Your task to perform on an android device: Go to CNN.com Image 0: 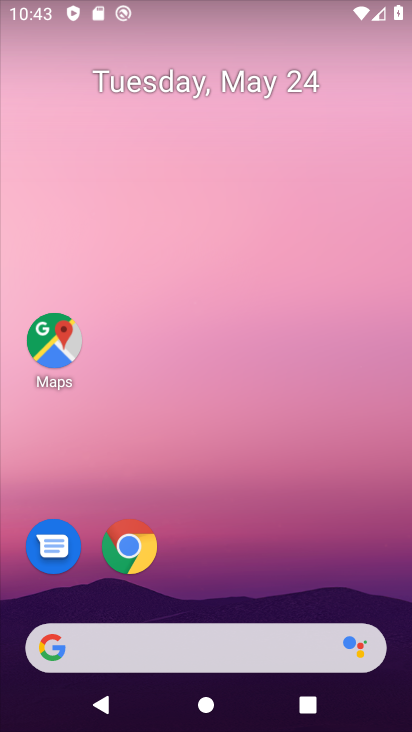
Step 0: click (126, 539)
Your task to perform on an android device: Go to CNN.com Image 1: 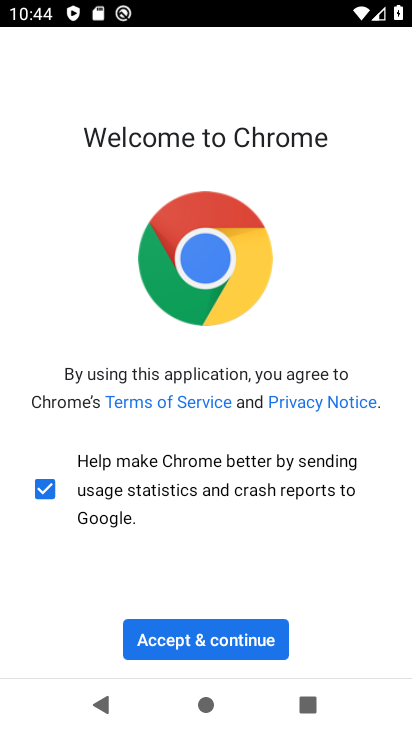
Step 1: click (219, 639)
Your task to perform on an android device: Go to CNN.com Image 2: 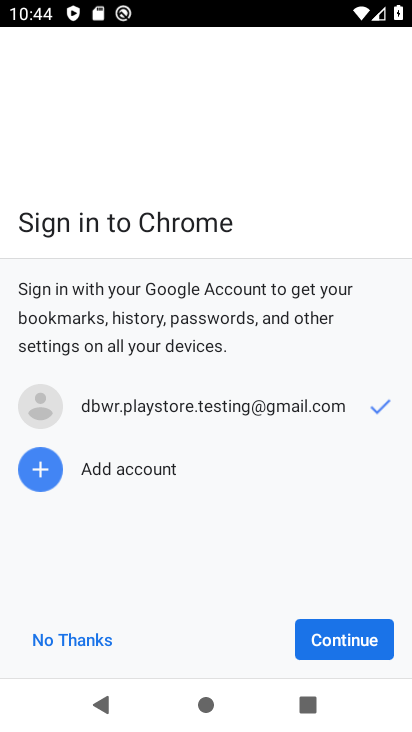
Step 2: click (342, 641)
Your task to perform on an android device: Go to CNN.com Image 3: 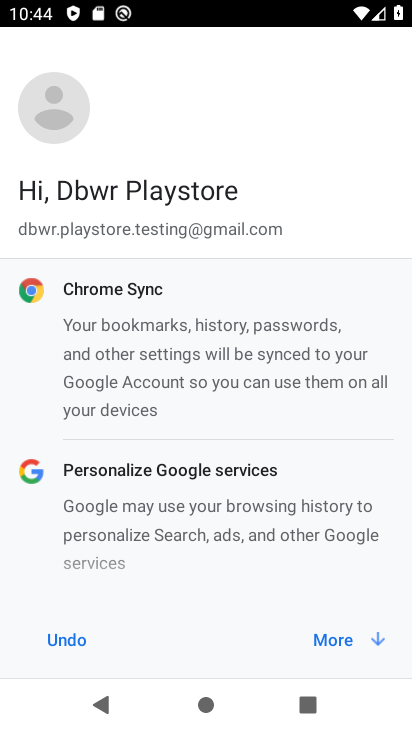
Step 3: click (347, 638)
Your task to perform on an android device: Go to CNN.com Image 4: 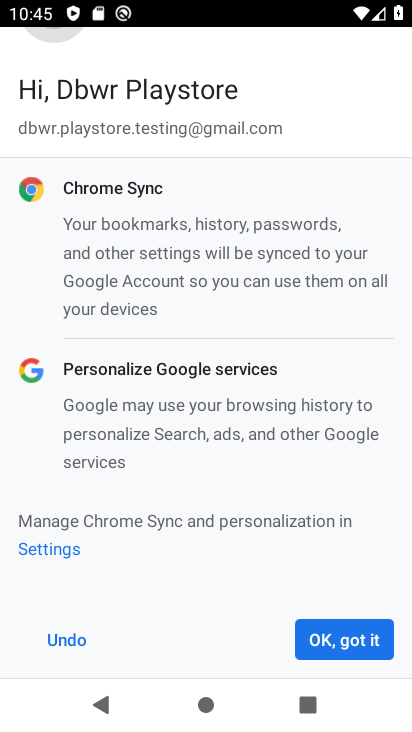
Step 4: click (356, 642)
Your task to perform on an android device: Go to CNN.com Image 5: 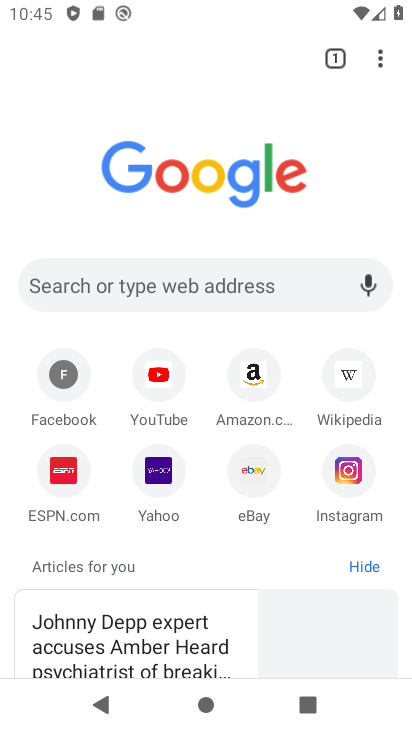
Step 5: click (203, 271)
Your task to perform on an android device: Go to CNN.com Image 6: 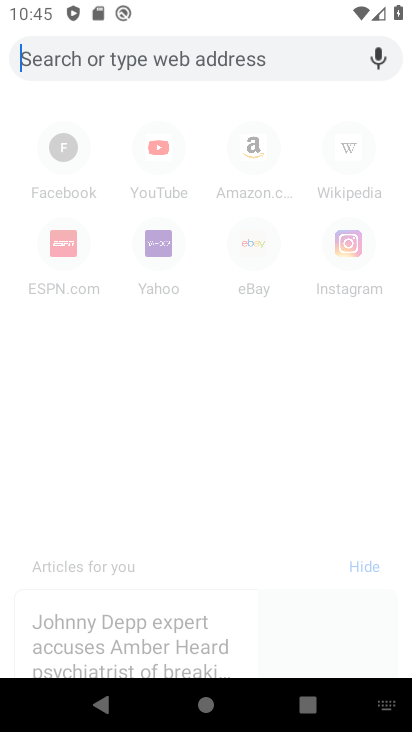
Step 6: type "cnn.com"
Your task to perform on an android device: Go to CNN.com Image 7: 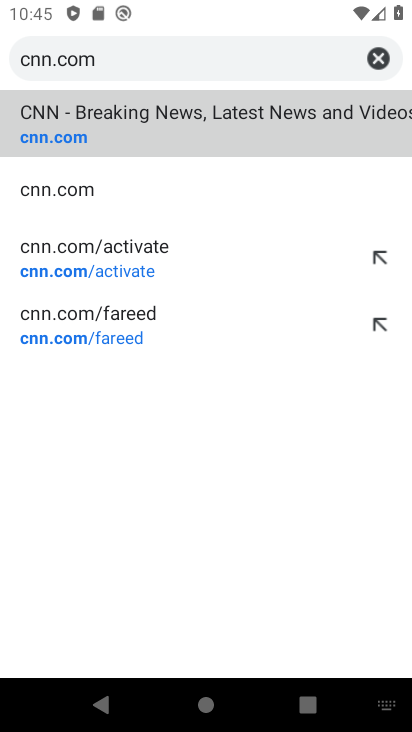
Step 7: click (219, 98)
Your task to perform on an android device: Go to CNN.com Image 8: 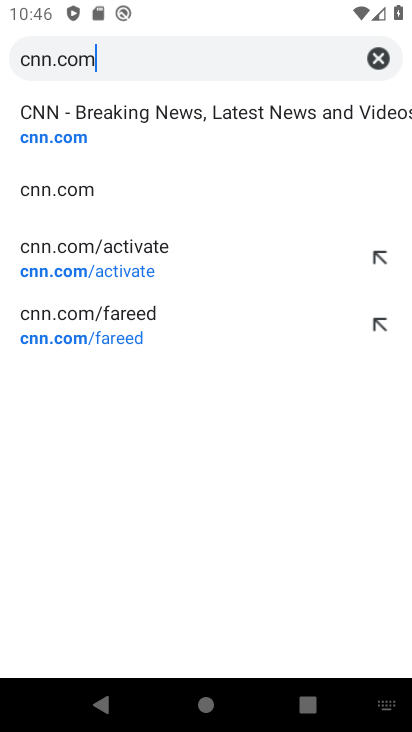
Step 8: click (194, 115)
Your task to perform on an android device: Go to CNN.com Image 9: 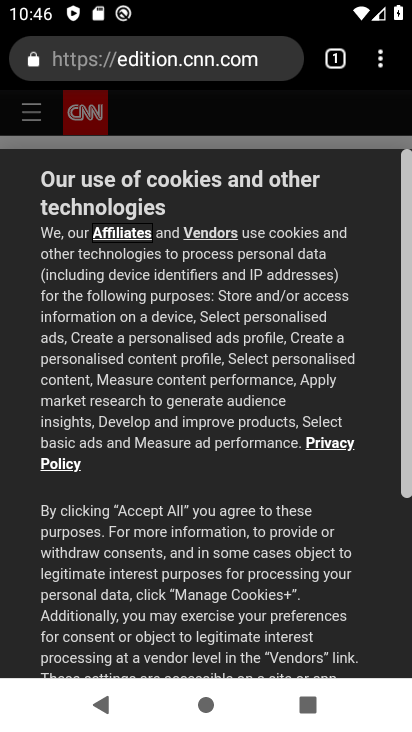
Step 9: task complete